Your task to perform on an android device: toggle javascript in the chrome app Image 0: 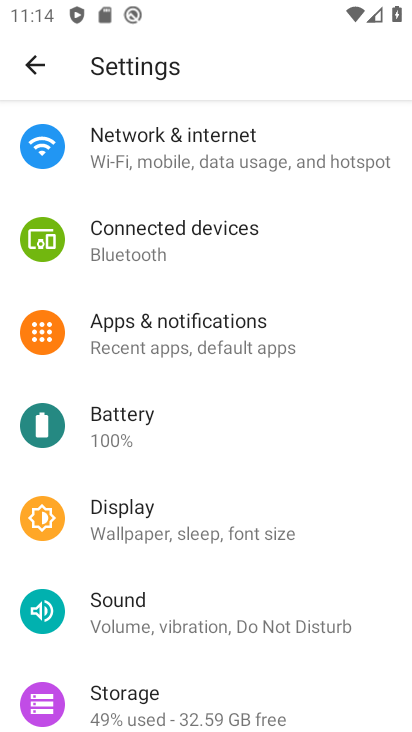
Step 0: press home button
Your task to perform on an android device: toggle javascript in the chrome app Image 1: 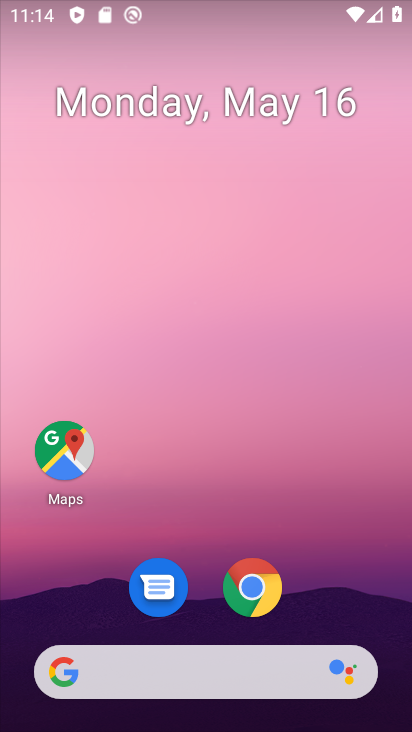
Step 1: click (244, 569)
Your task to perform on an android device: toggle javascript in the chrome app Image 2: 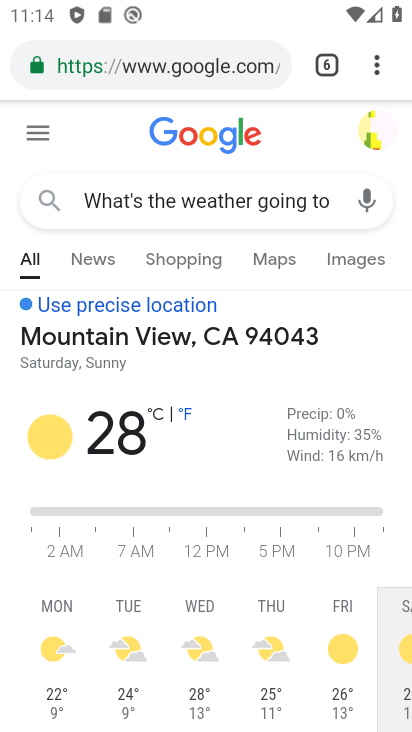
Step 2: click (363, 61)
Your task to perform on an android device: toggle javascript in the chrome app Image 3: 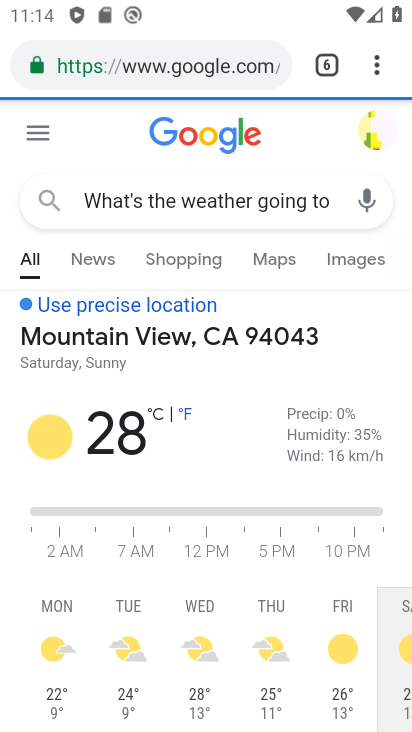
Step 3: click (369, 61)
Your task to perform on an android device: toggle javascript in the chrome app Image 4: 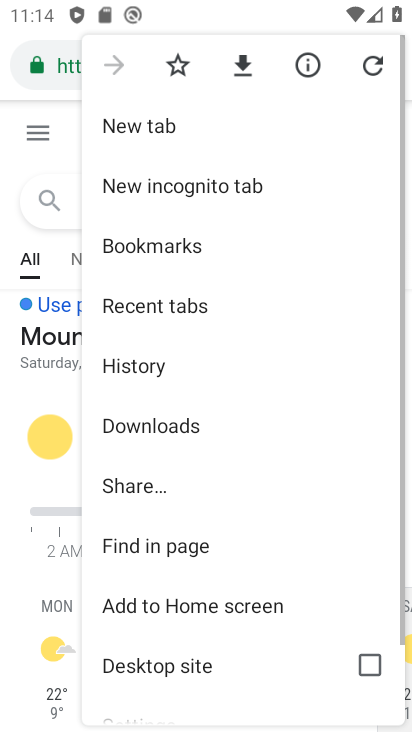
Step 4: drag from (237, 630) to (246, 226)
Your task to perform on an android device: toggle javascript in the chrome app Image 5: 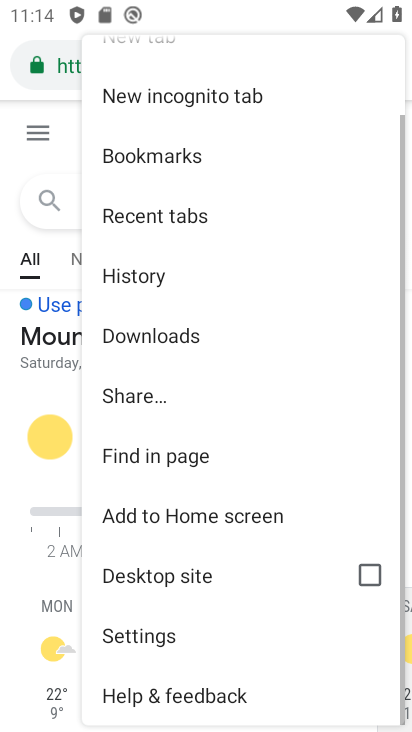
Step 5: click (160, 640)
Your task to perform on an android device: toggle javascript in the chrome app Image 6: 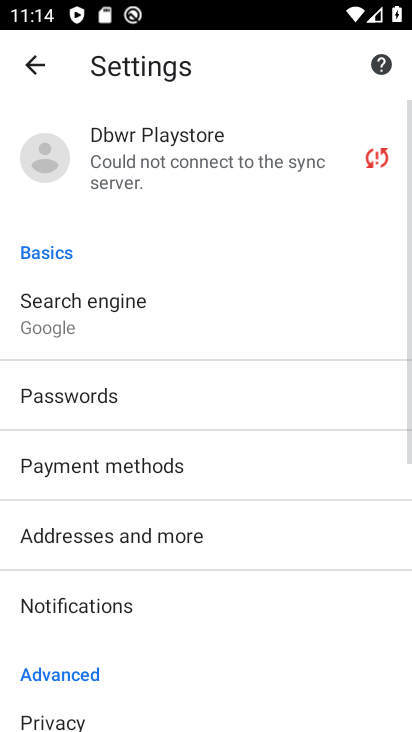
Step 6: drag from (156, 635) to (215, 275)
Your task to perform on an android device: toggle javascript in the chrome app Image 7: 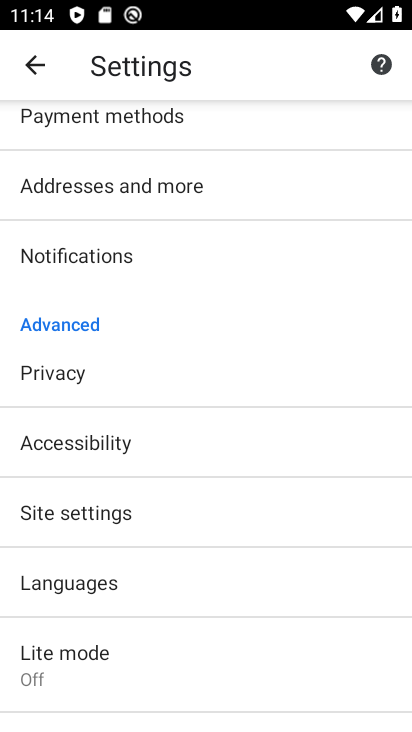
Step 7: click (156, 512)
Your task to perform on an android device: toggle javascript in the chrome app Image 8: 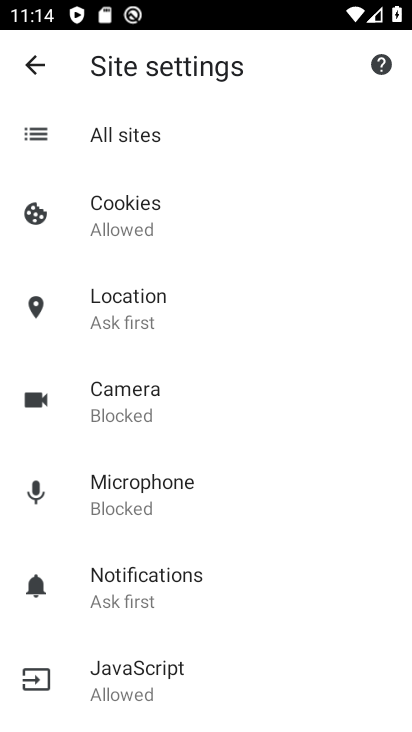
Step 8: click (175, 709)
Your task to perform on an android device: toggle javascript in the chrome app Image 9: 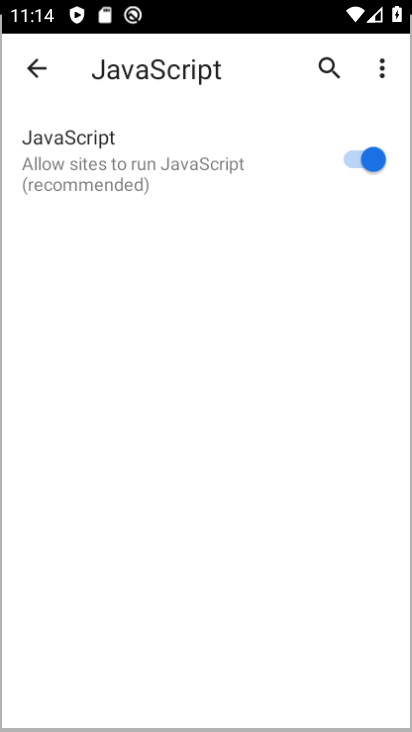
Step 9: click (195, 675)
Your task to perform on an android device: toggle javascript in the chrome app Image 10: 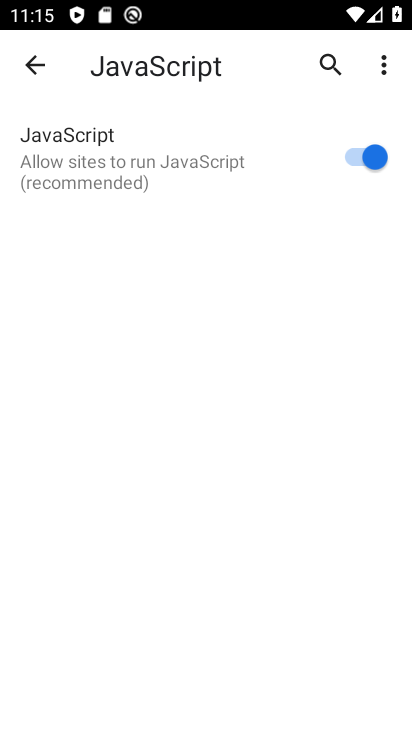
Step 10: task complete